Your task to perform on an android device: change the clock display to digital Image 0: 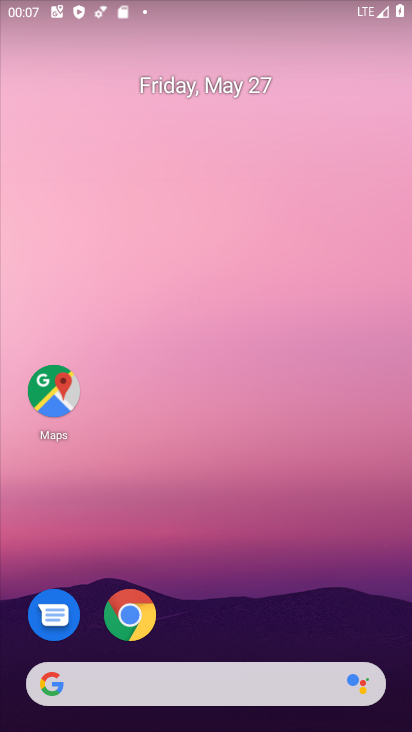
Step 0: drag from (278, 603) to (237, 179)
Your task to perform on an android device: change the clock display to digital Image 1: 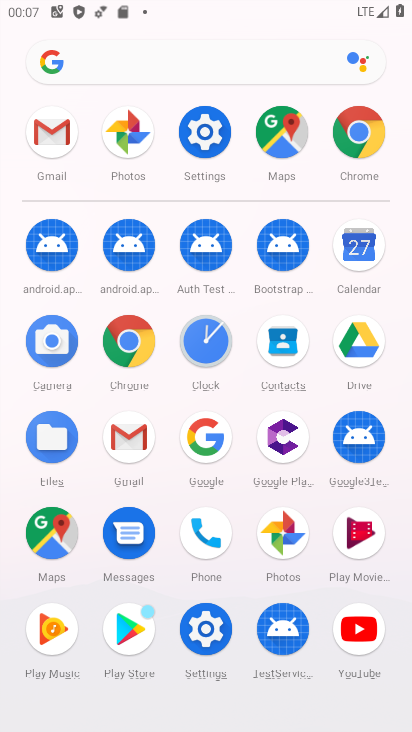
Step 1: click (188, 360)
Your task to perform on an android device: change the clock display to digital Image 2: 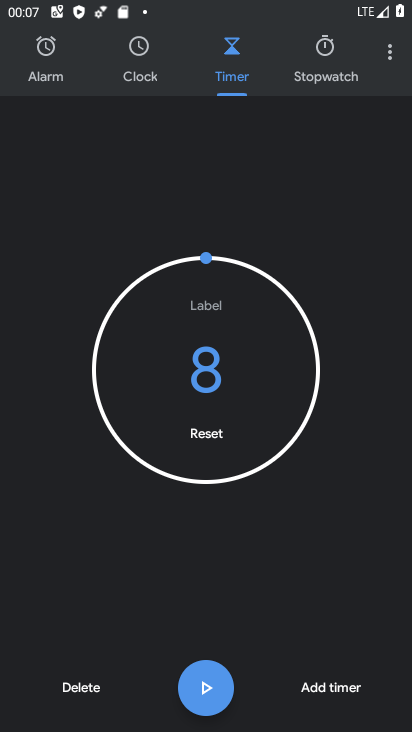
Step 2: click (374, 55)
Your task to perform on an android device: change the clock display to digital Image 3: 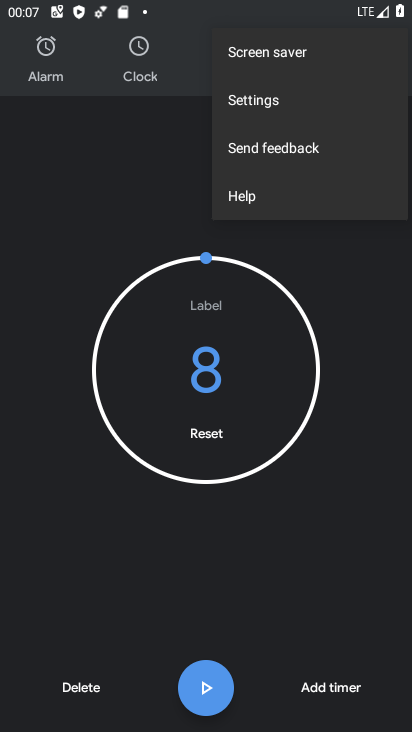
Step 3: click (266, 112)
Your task to perform on an android device: change the clock display to digital Image 4: 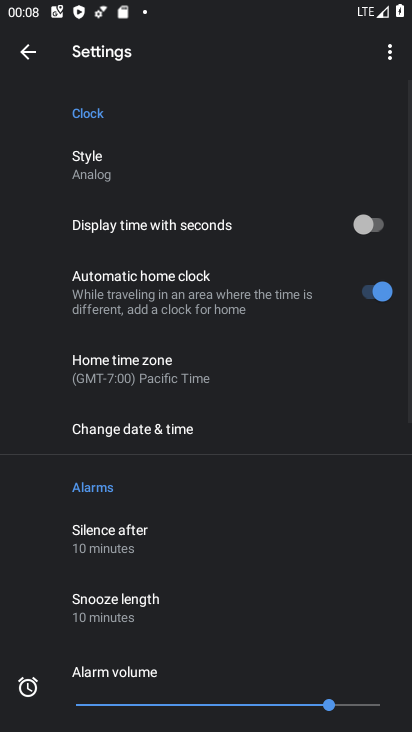
Step 4: click (97, 168)
Your task to perform on an android device: change the clock display to digital Image 5: 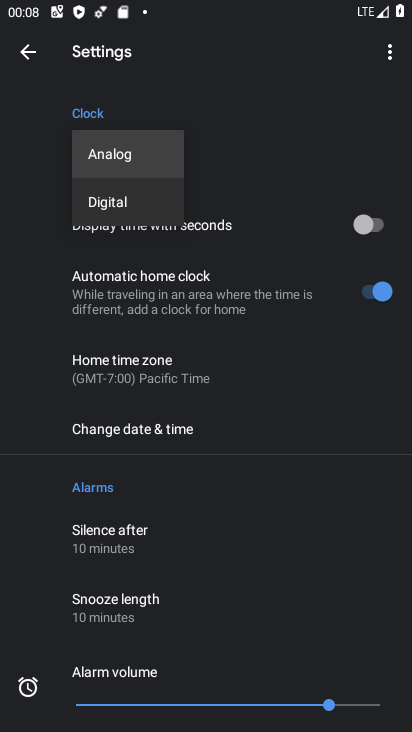
Step 5: click (102, 208)
Your task to perform on an android device: change the clock display to digital Image 6: 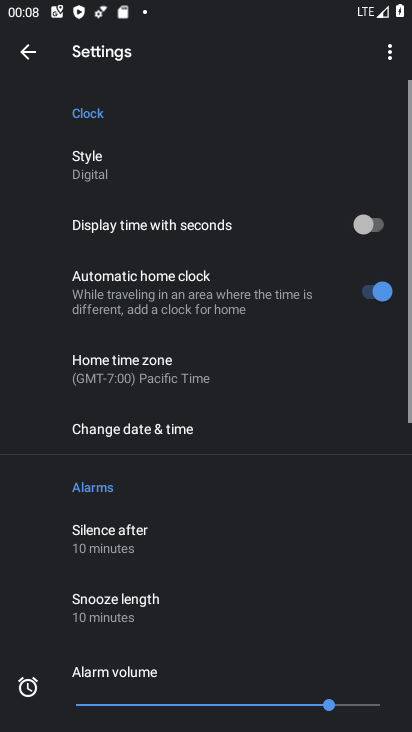
Step 6: task complete